Your task to perform on an android device: What is the news today? Image 0: 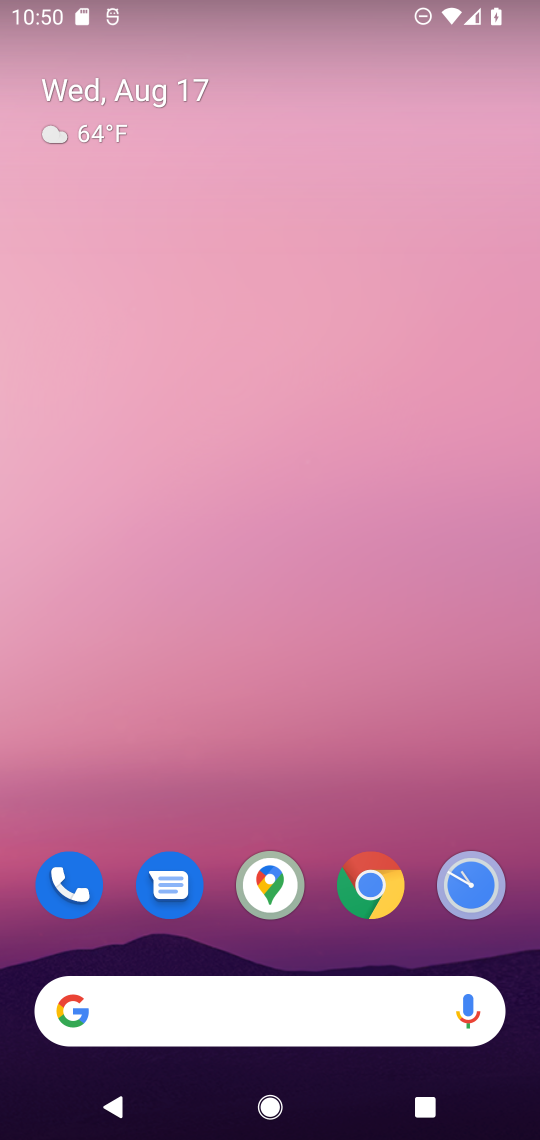
Step 0: drag from (1, 527) to (526, 564)
Your task to perform on an android device: What is the news today? Image 1: 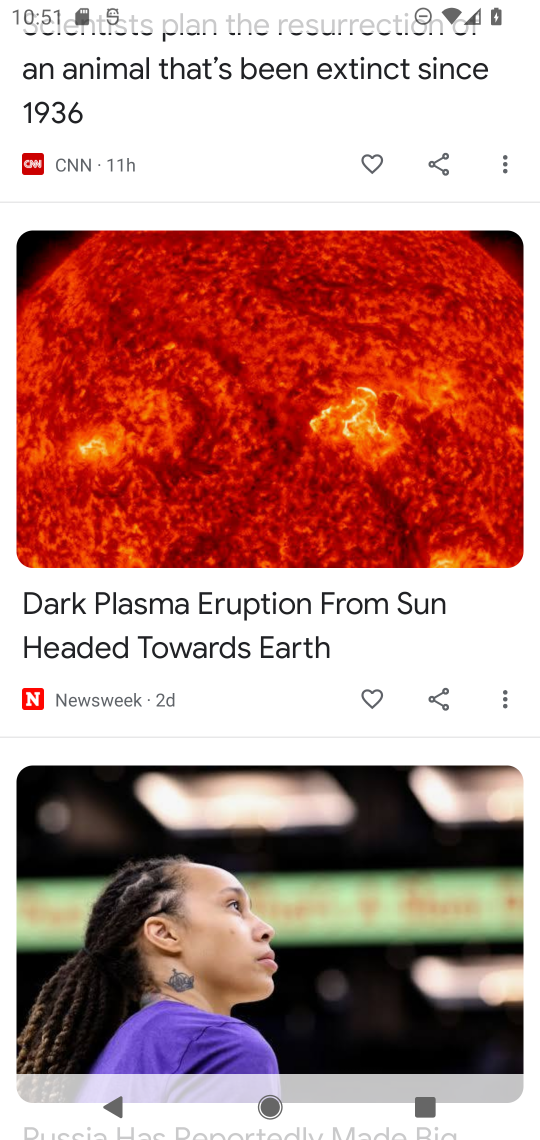
Step 1: task complete